Your task to perform on an android device: turn on data saver in the chrome app Image 0: 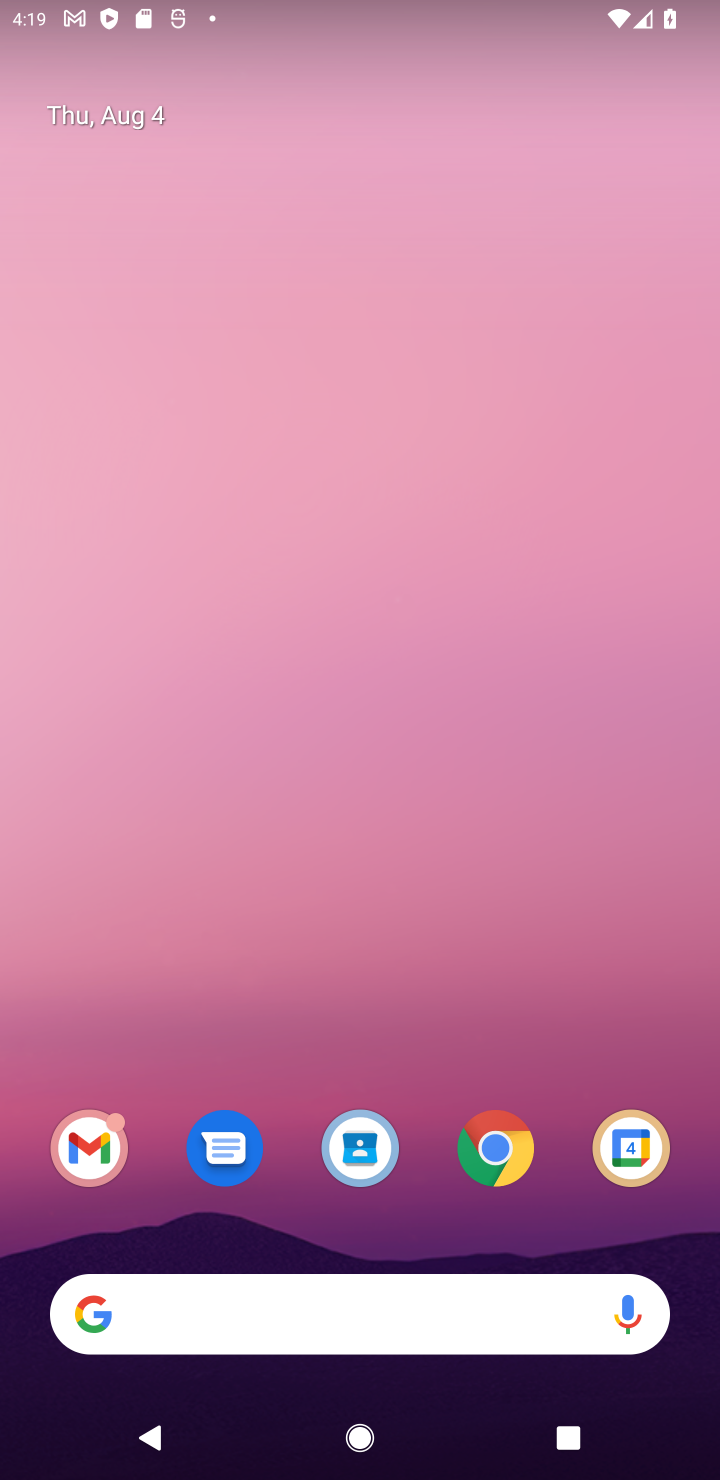
Step 0: click (500, 1153)
Your task to perform on an android device: turn on data saver in the chrome app Image 1: 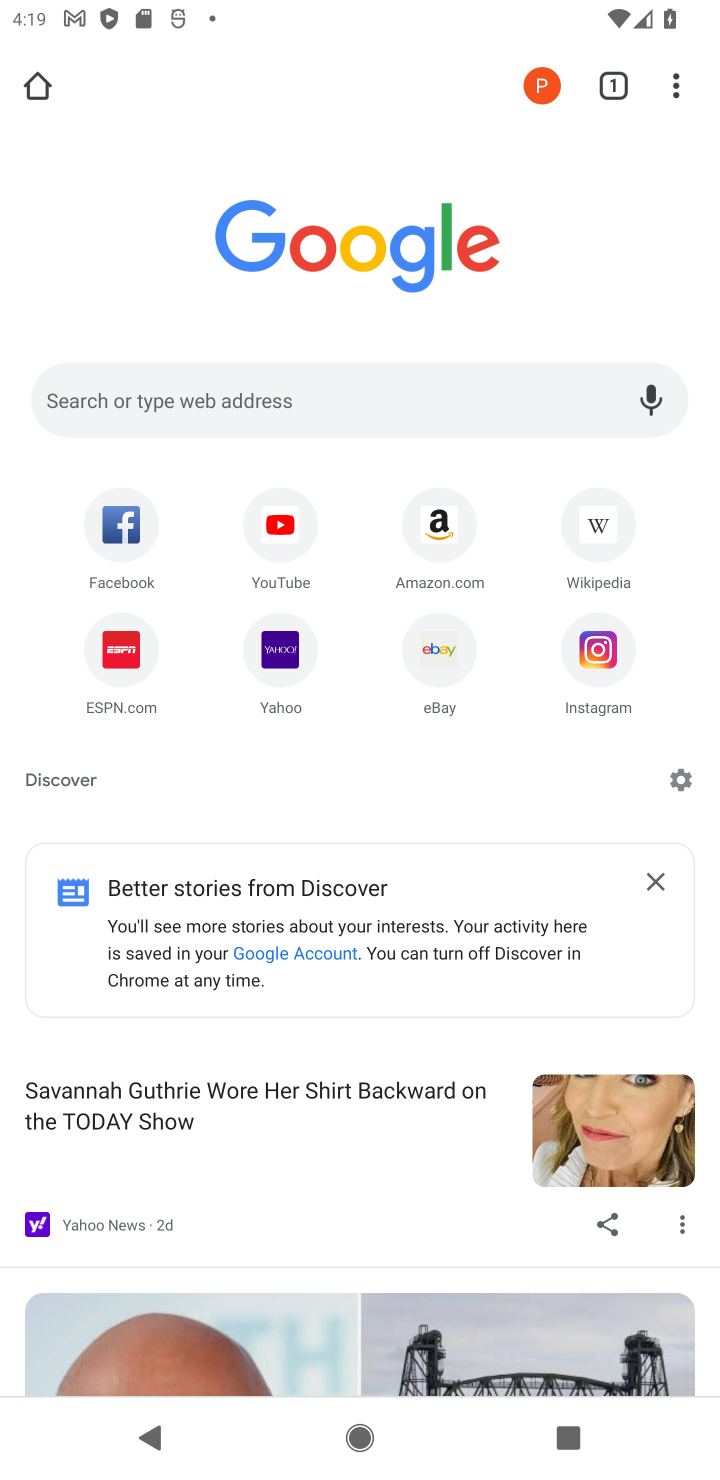
Step 1: click (673, 98)
Your task to perform on an android device: turn on data saver in the chrome app Image 2: 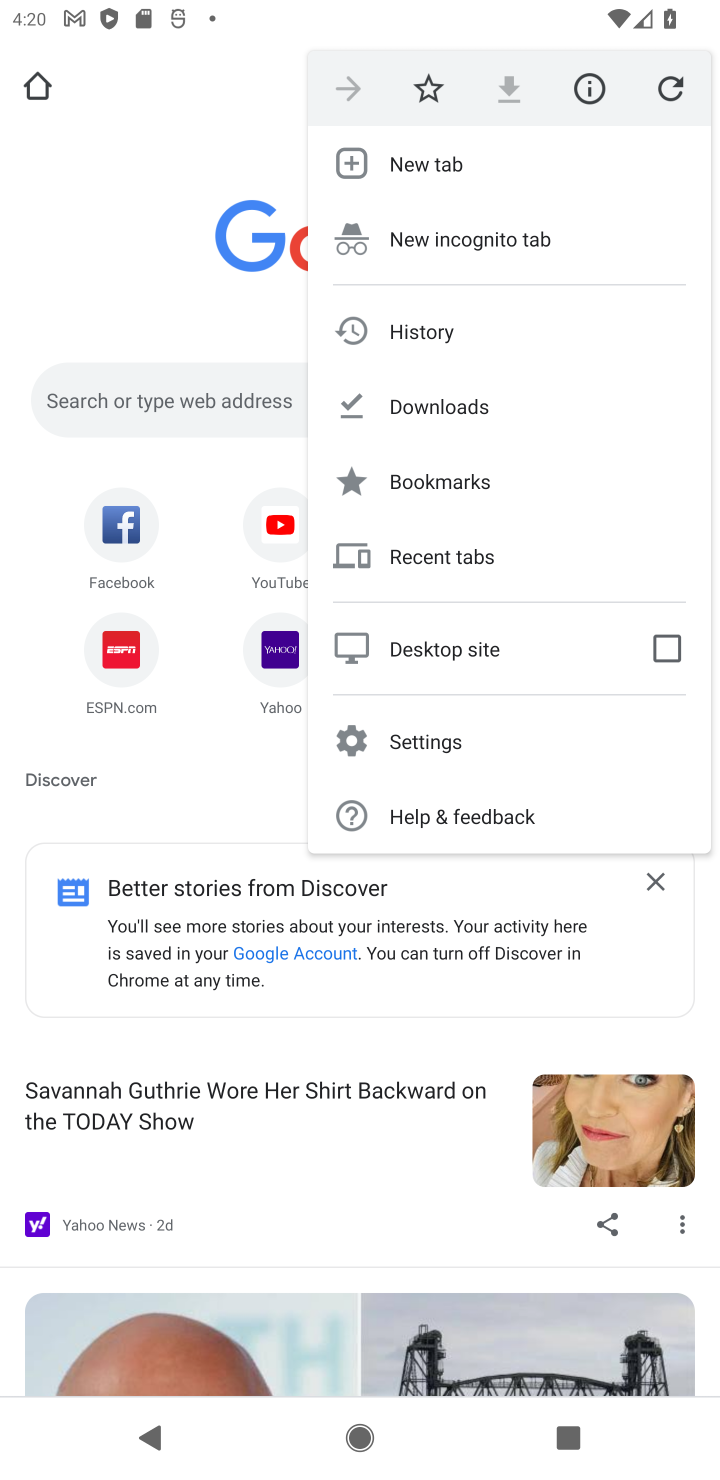
Step 2: click (404, 739)
Your task to perform on an android device: turn on data saver in the chrome app Image 3: 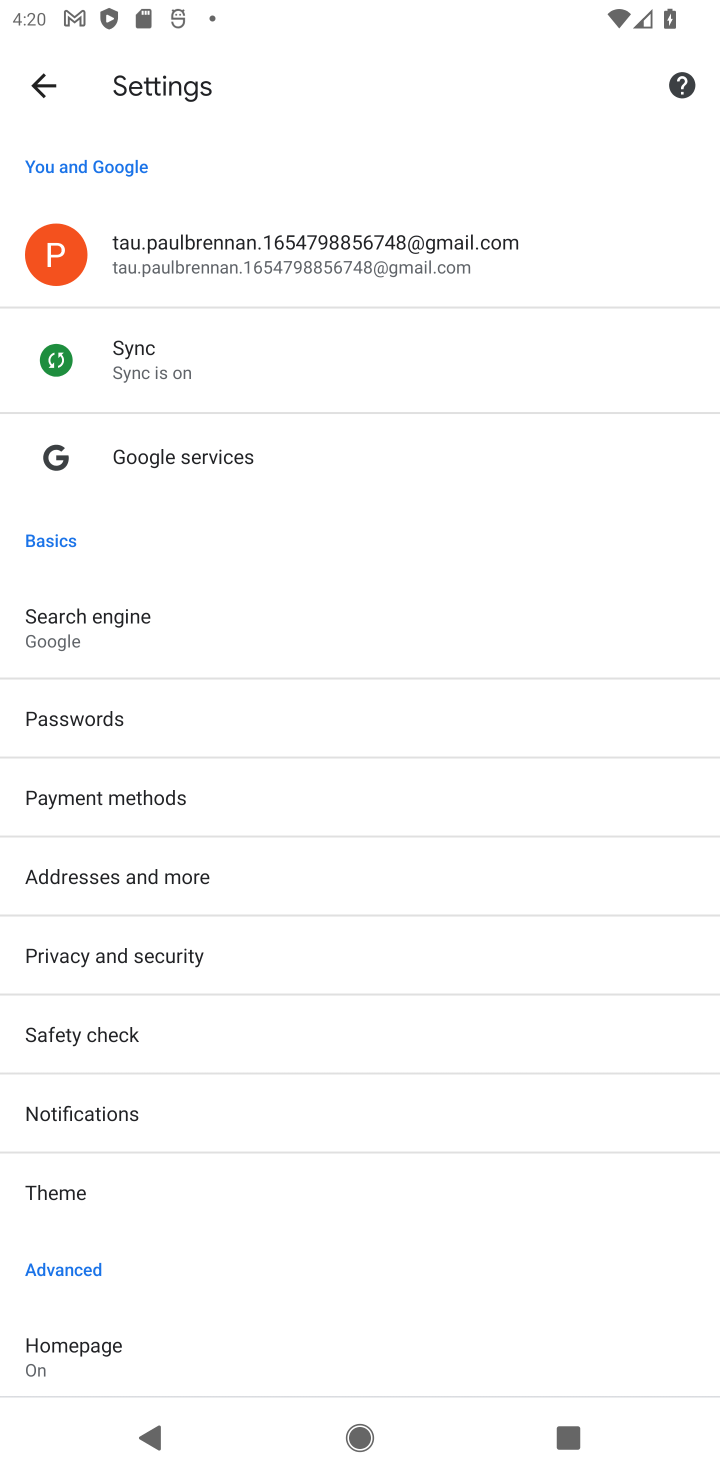
Step 3: drag from (332, 1101) to (363, 385)
Your task to perform on an android device: turn on data saver in the chrome app Image 4: 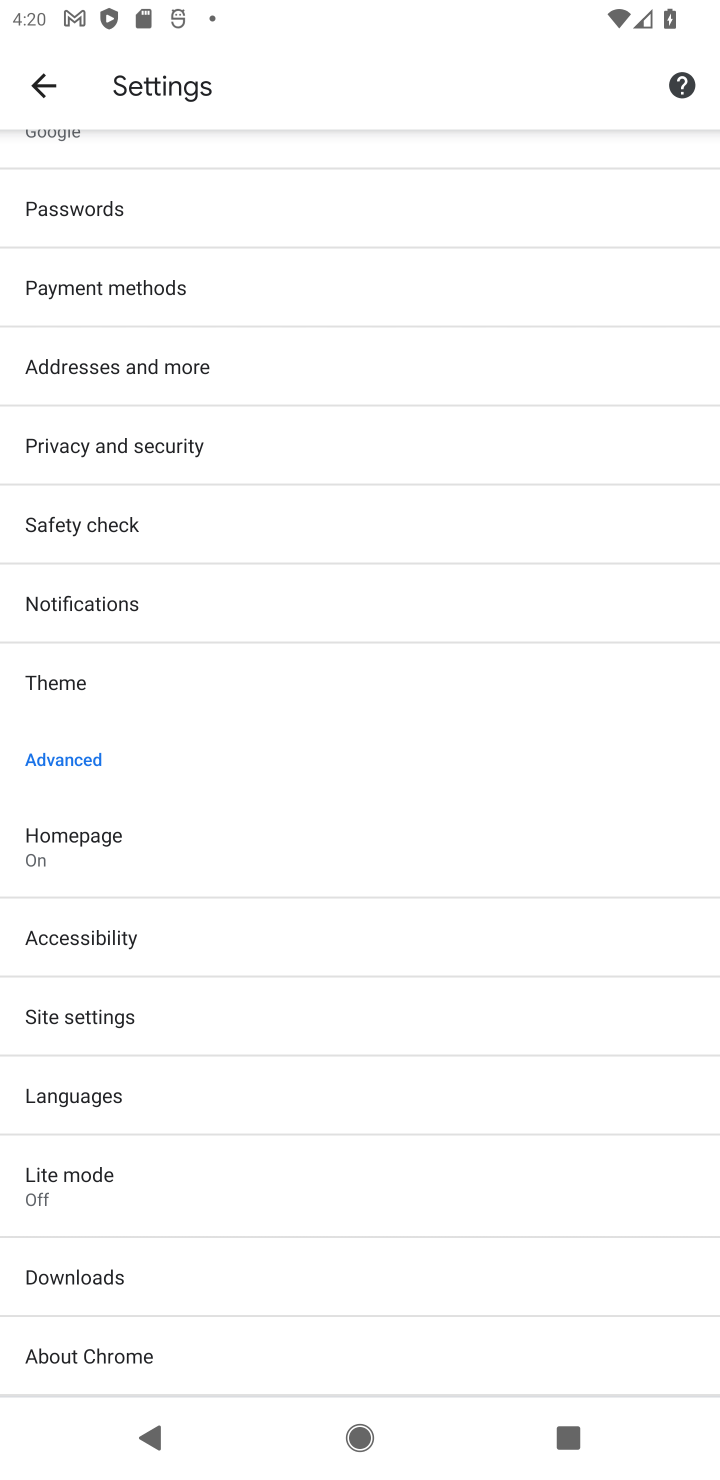
Step 4: click (74, 1177)
Your task to perform on an android device: turn on data saver in the chrome app Image 5: 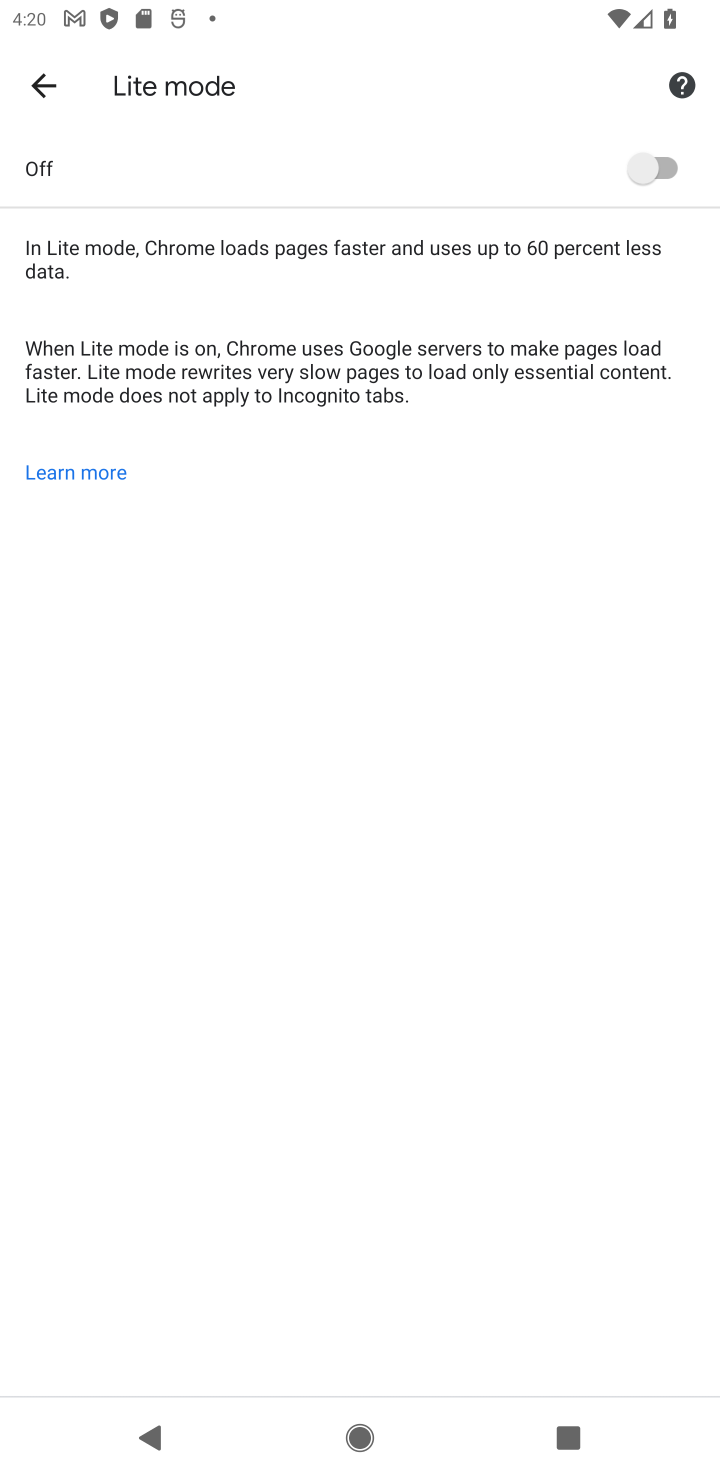
Step 5: click (665, 168)
Your task to perform on an android device: turn on data saver in the chrome app Image 6: 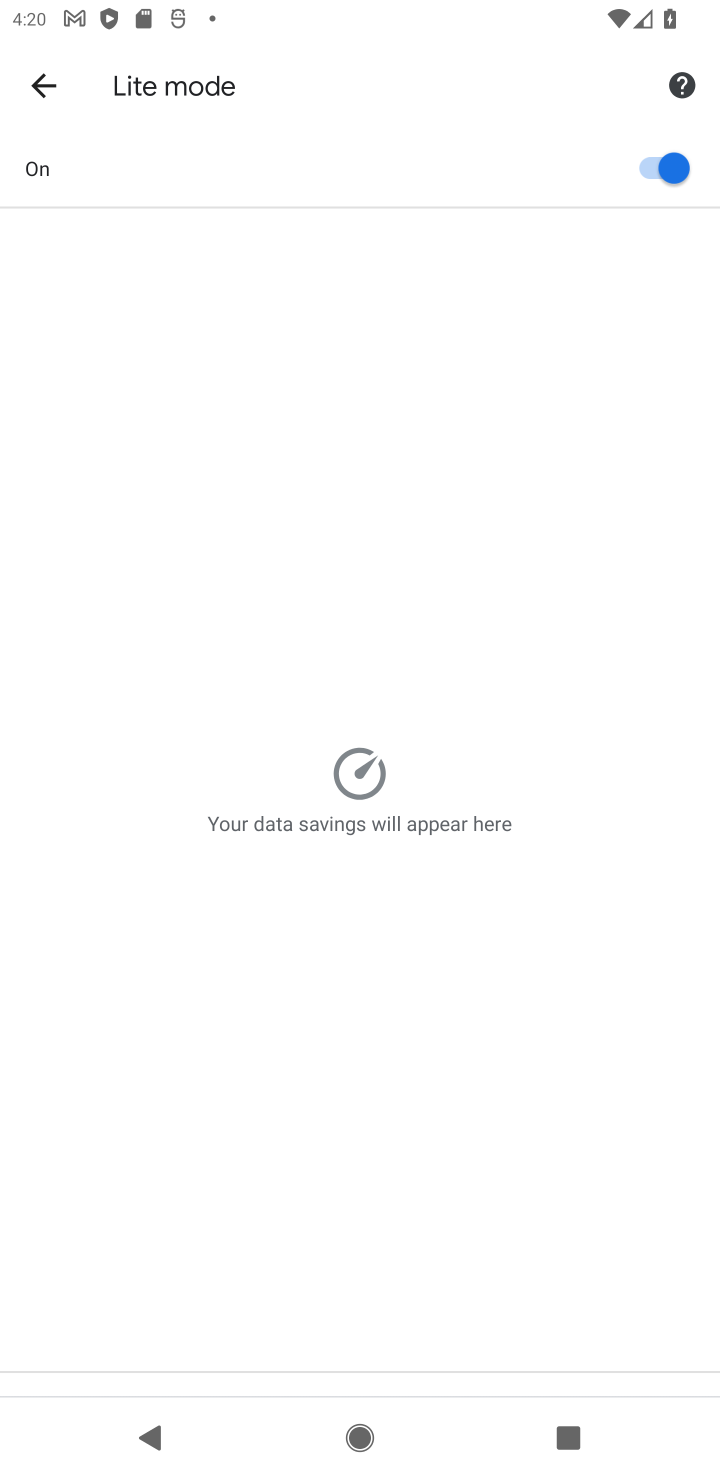
Step 6: task complete